Your task to perform on an android device: Open Google Maps Image 0: 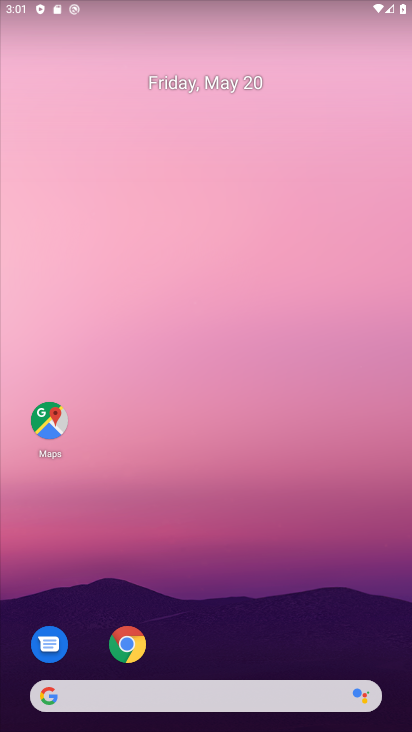
Step 0: click (64, 420)
Your task to perform on an android device: Open Google Maps Image 1: 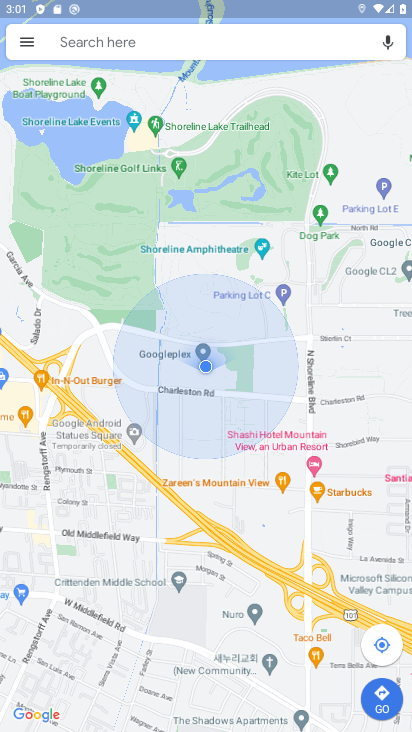
Step 1: task complete